Your task to perform on an android device: What's the weather going to be this weekend? Image 0: 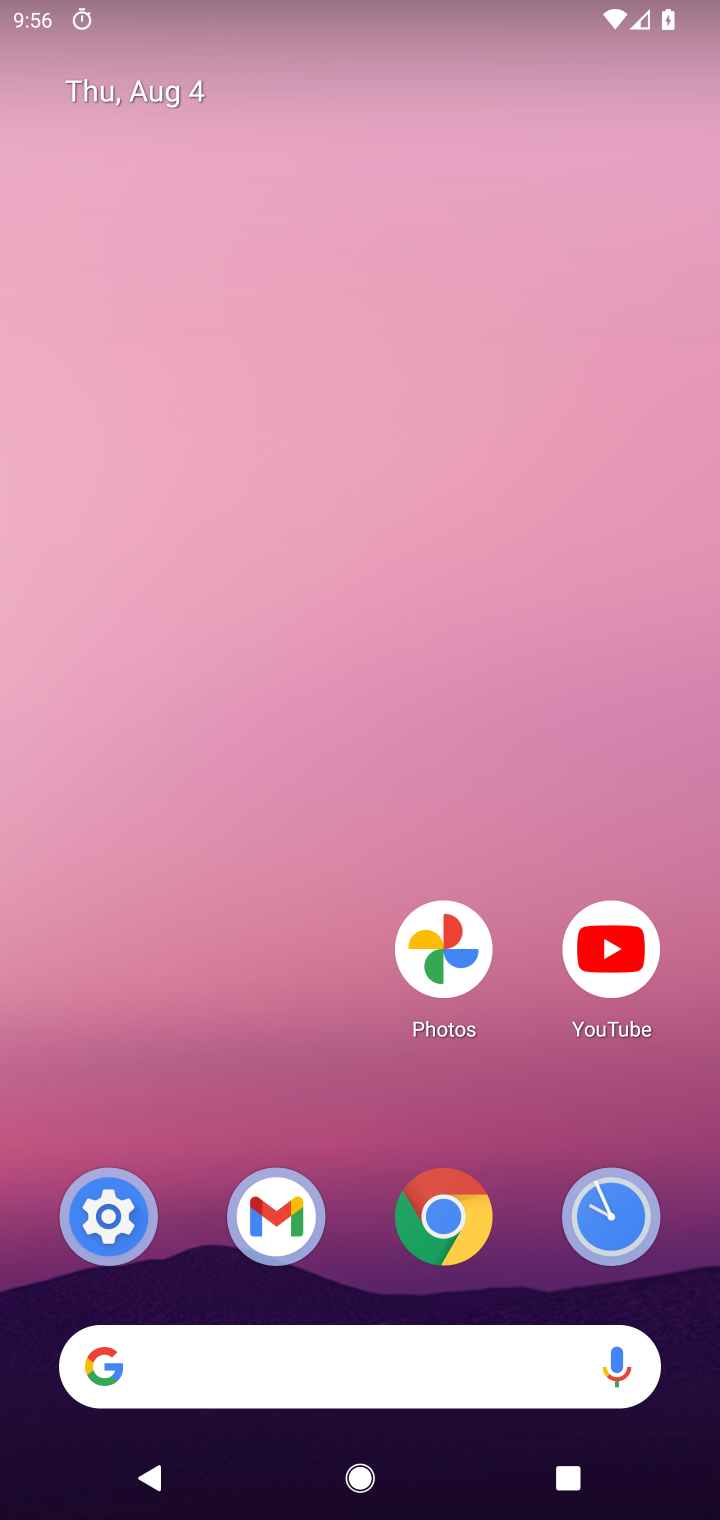
Step 0: drag from (363, 1218) to (298, 201)
Your task to perform on an android device: What's the weather going to be this weekend? Image 1: 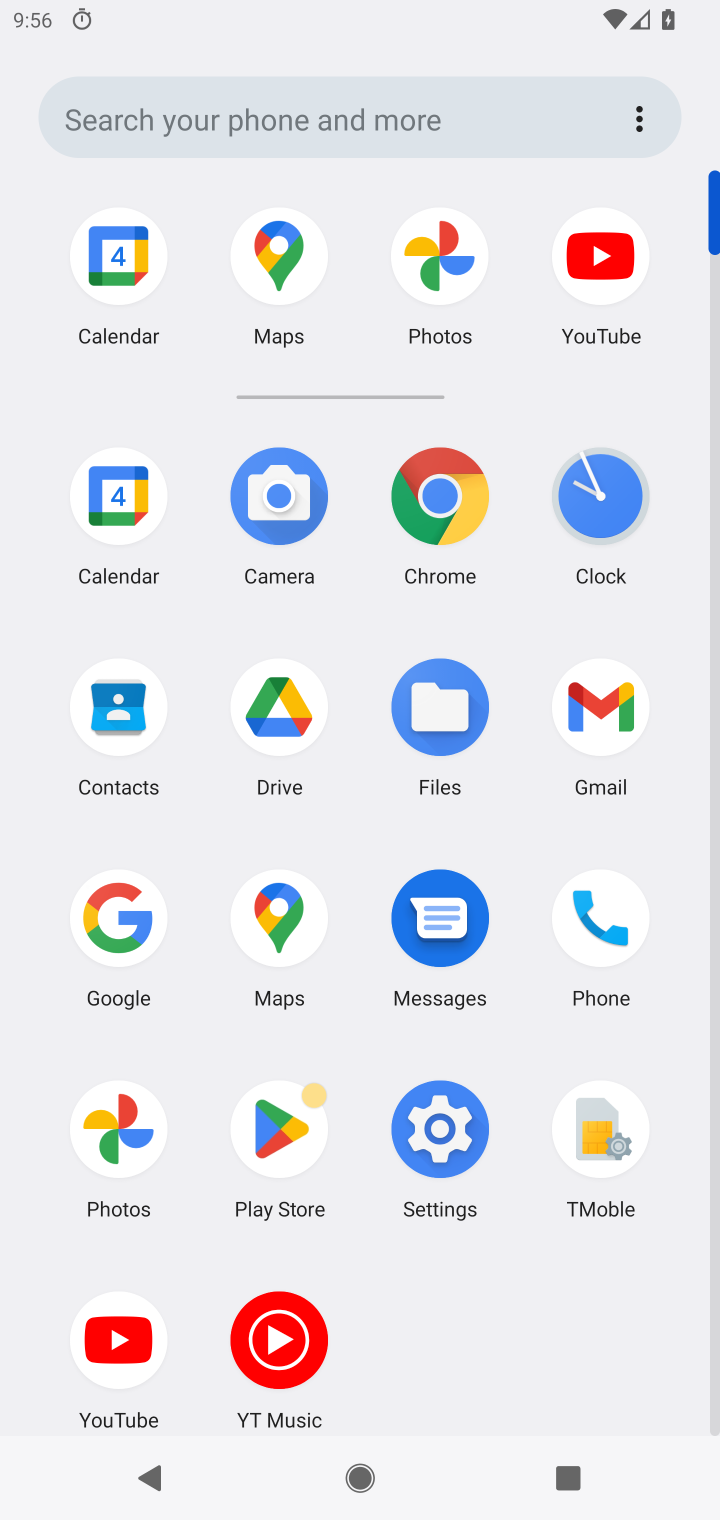
Step 1: click (129, 908)
Your task to perform on an android device: What's the weather going to be this weekend? Image 2: 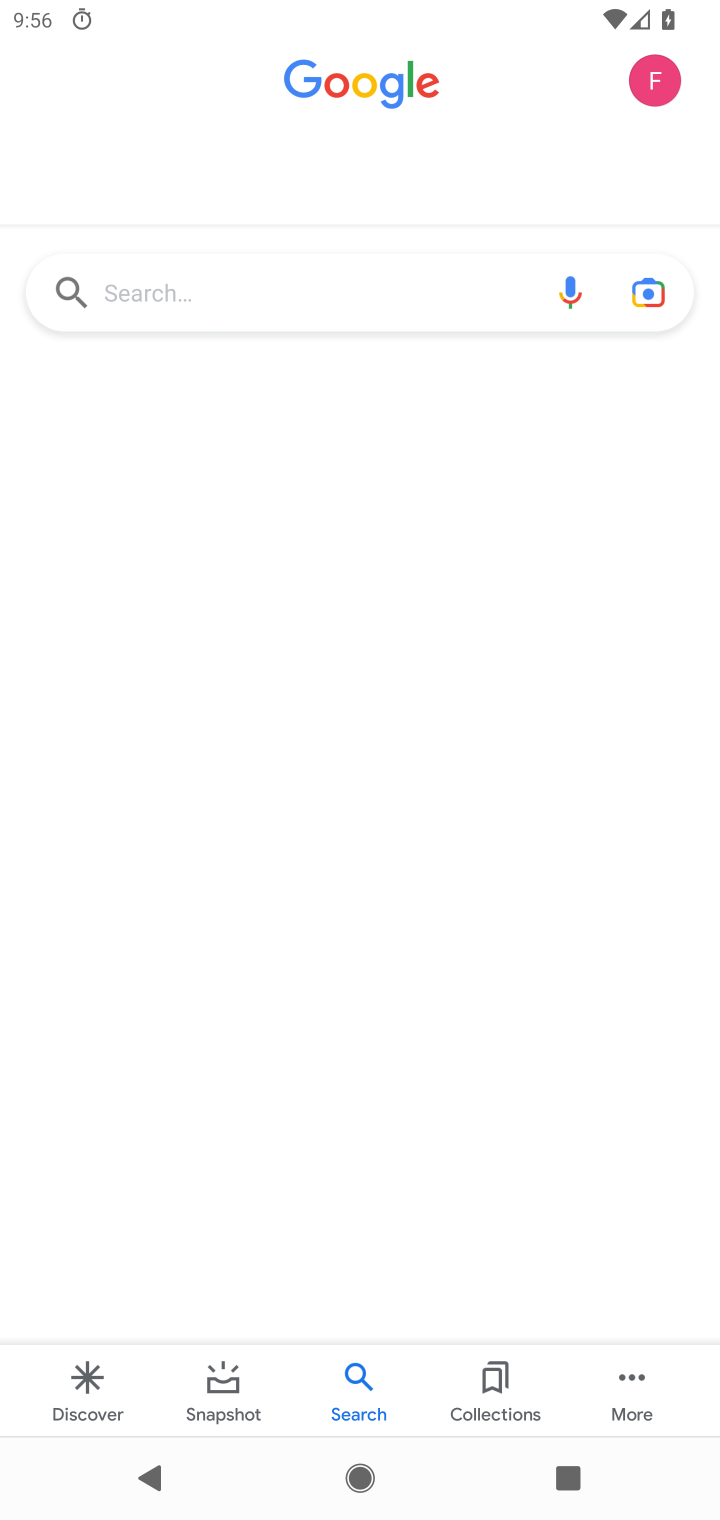
Step 2: click (330, 282)
Your task to perform on an android device: What's the weather going to be this weekend? Image 3: 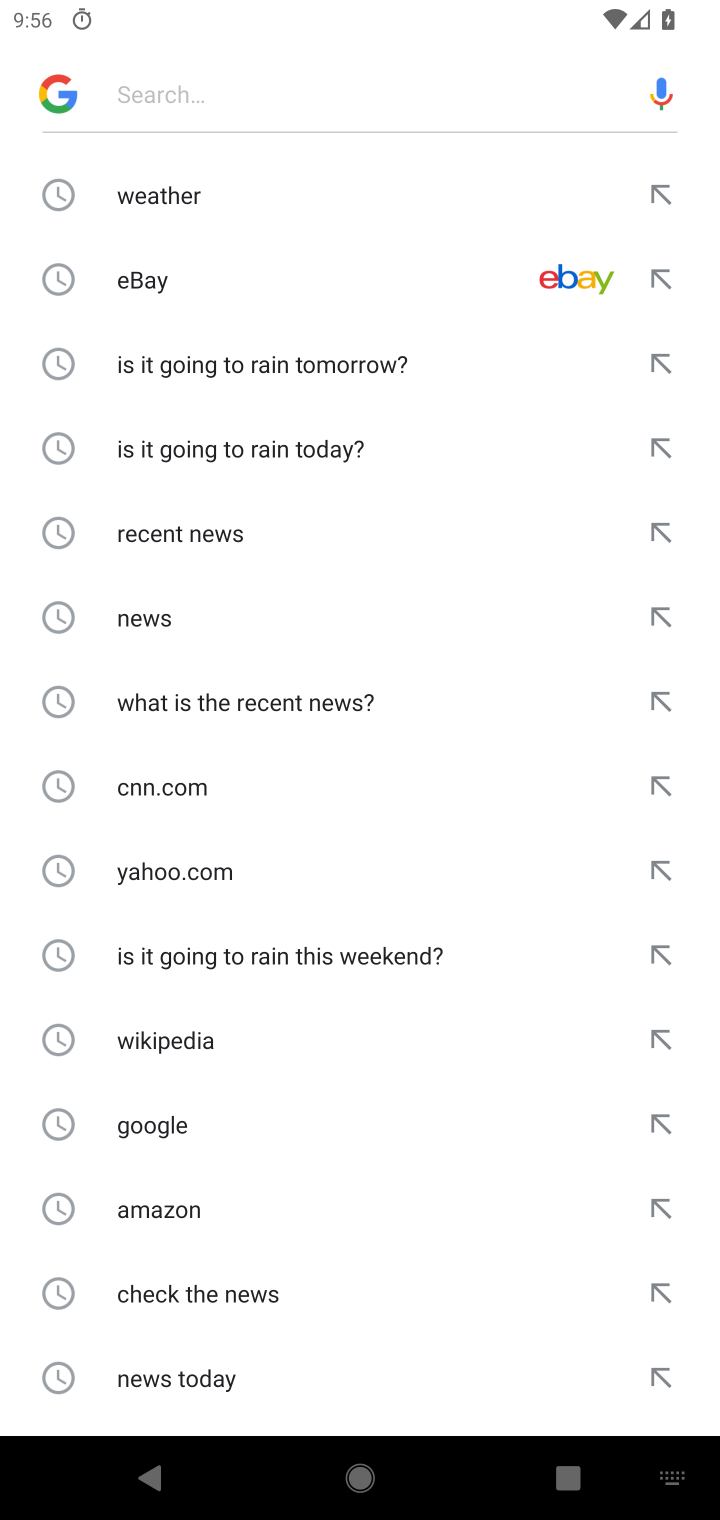
Step 3: click (152, 203)
Your task to perform on an android device: What's the weather going to be this weekend? Image 4: 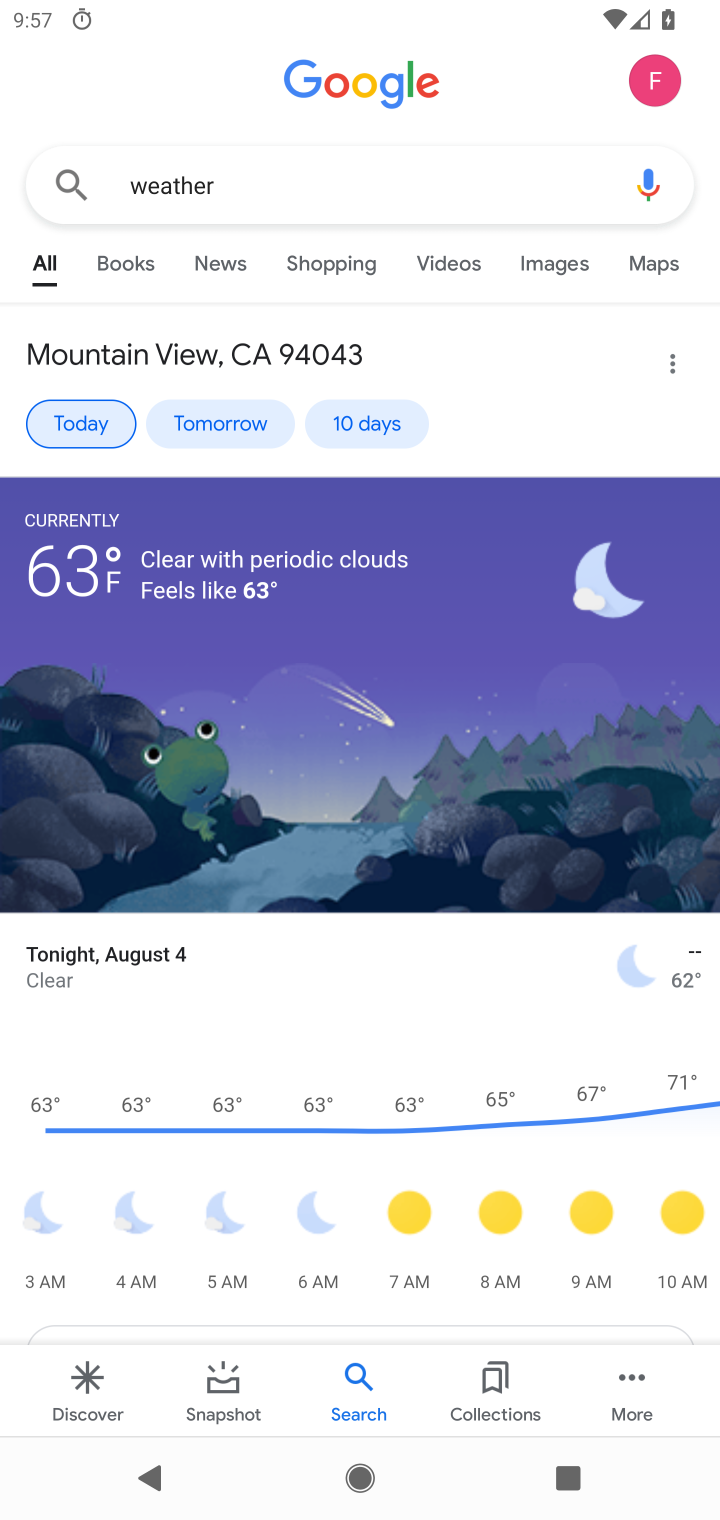
Step 4: click (371, 431)
Your task to perform on an android device: What's the weather going to be this weekend? Image 5: 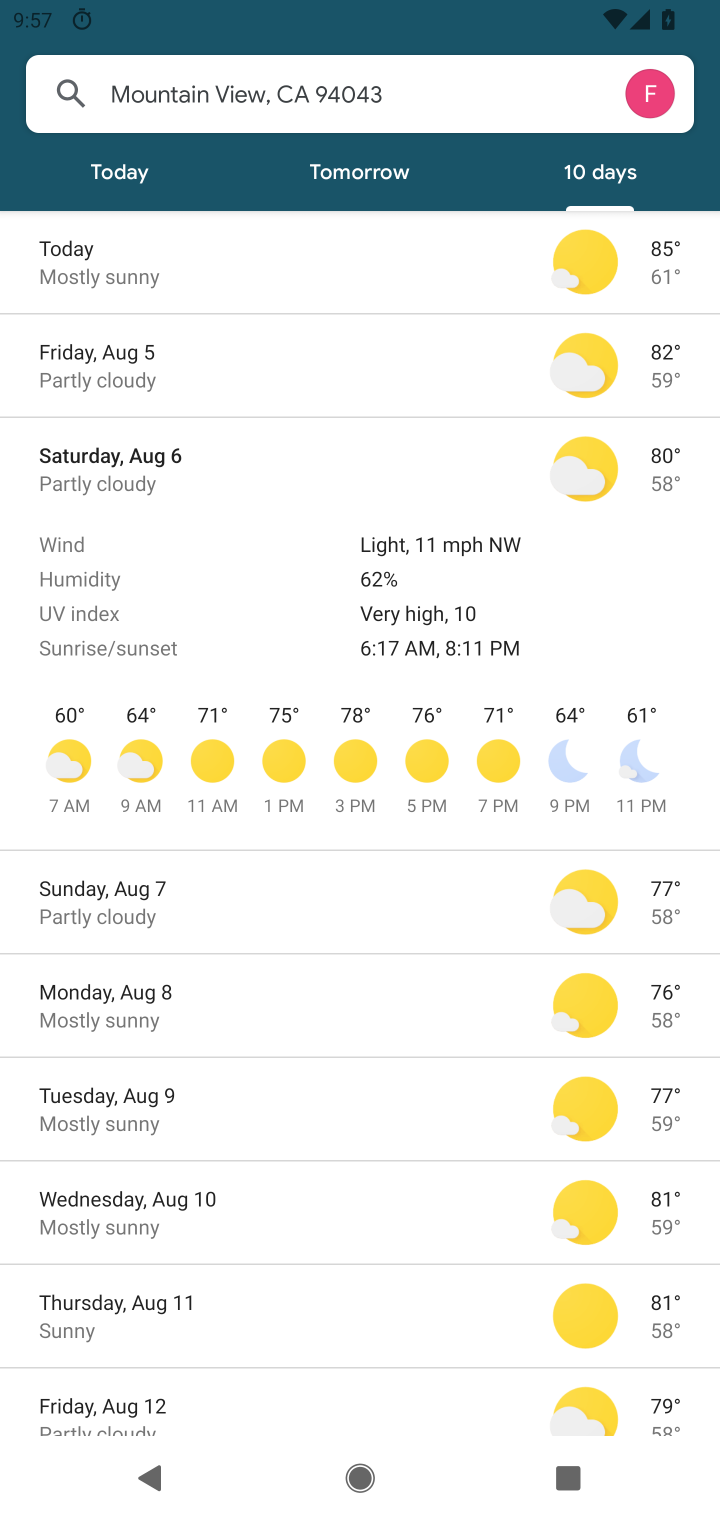
Step 5: task complete